Your task to perform on an android device: Open wifi settings Image 0: 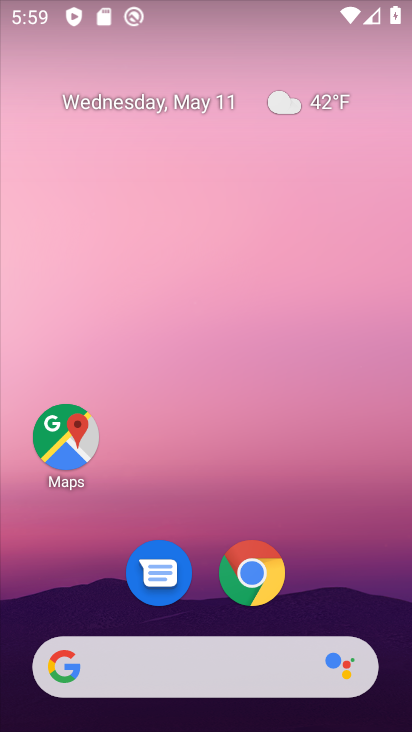
Step 0: click (318, 69)
Your task to perform on an android device: Open wifi settings Image 1: 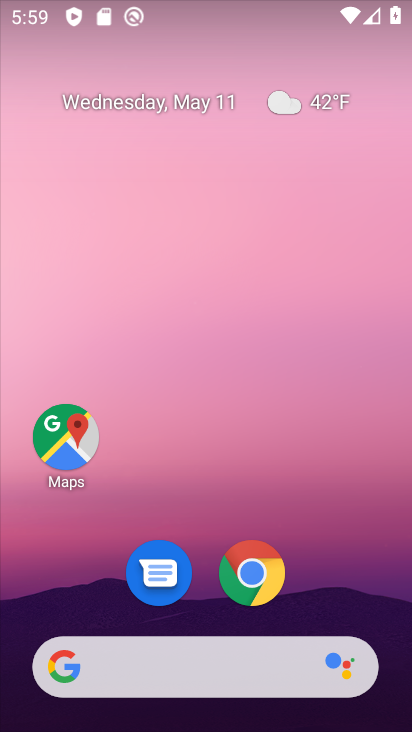
Step 1: drag from (314, 584) to (332, 21)
Your task to perform on an android device: Open wifi settings Image 2: 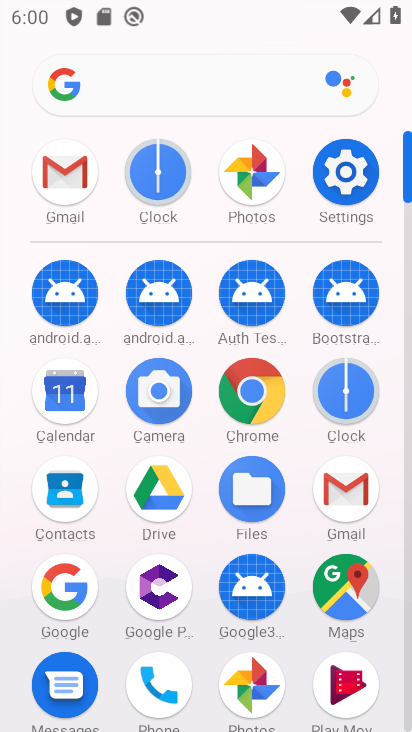
Step 2: click (347, 179)
Your task to perform on an android device: Open wifi settings Image 3: 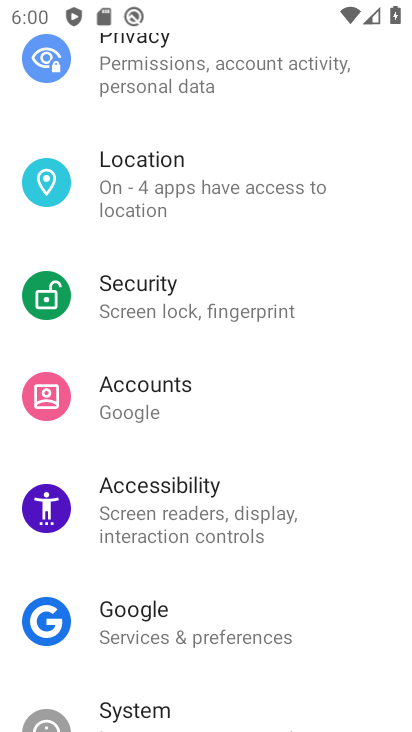
Step 3: drag from (226, 145) to (250, 570)
Your task to perform on an android device: Open wifi settings Image 4: 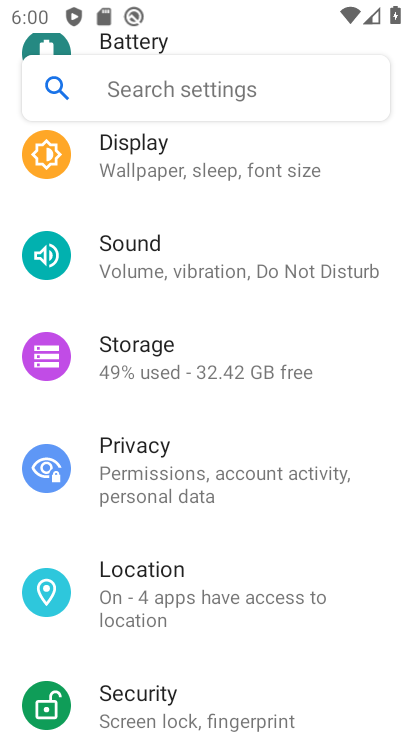
Step 4: drag from (271, 243) to (265, 647)
Your task to perform on an android device: Open wifi settings Image 5: 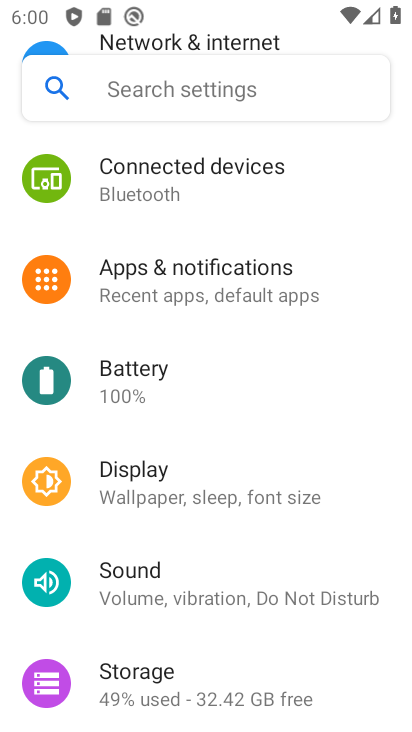
Step 5: drag from (214, 273) to (218, 688)
Your task to perform on an android device: Open wifi settings Image 6: 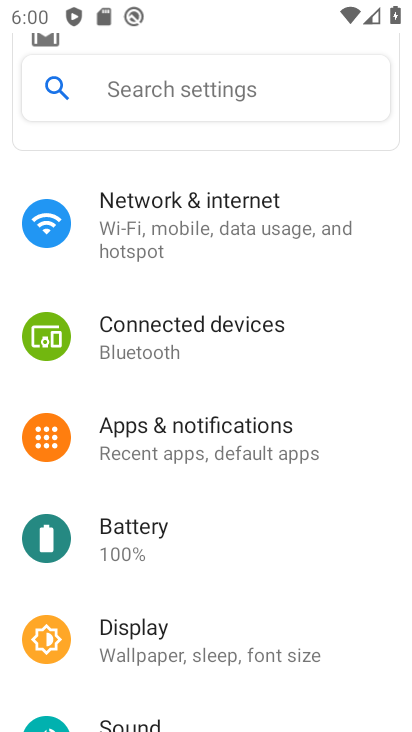
Step 6: drag from (220, 260) to (229, 729)
Your task to perform on an android device: Open wifi settings Image 7: 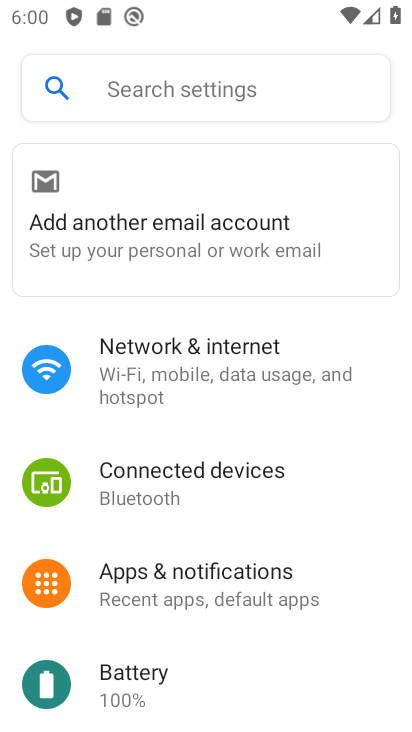
Step 7: click (174, 372)
Your task to perform on an android device: Open wifi settings Image 8: 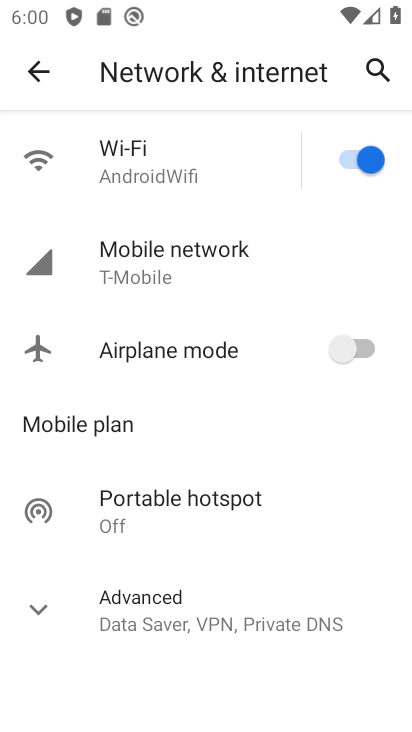
Step 8: task complete